Your task to perform on an android device: What's the weather going to be this weekend? Image 0: 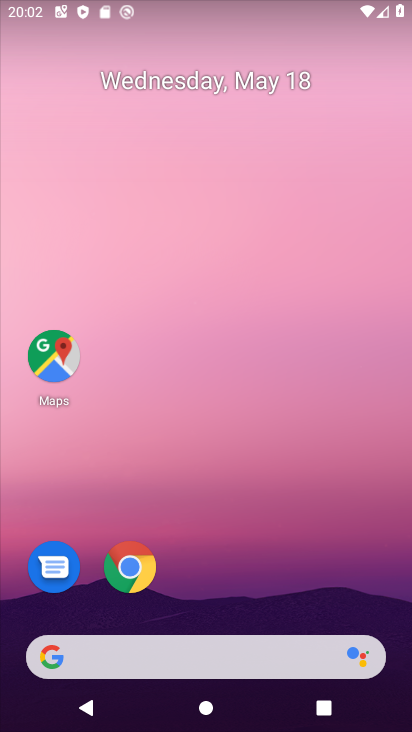
Step 0: drag from (47, 724) to (1, 361)
Your task to perform on an android device: What's the weather going to be this weekend? Image 1: 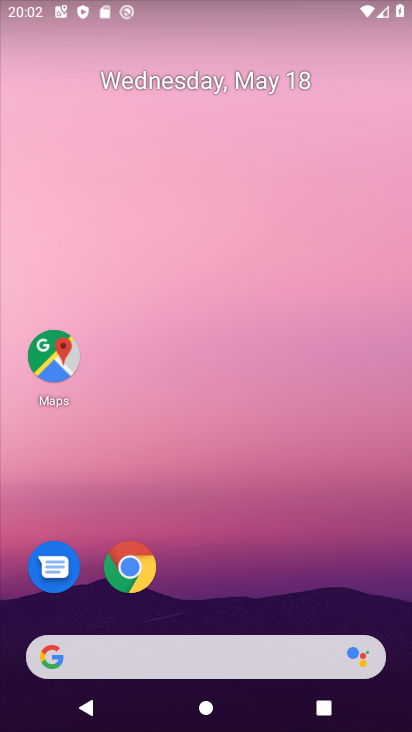
Step 1: click (129, 561)
Your task to perform on an android device: What's the weather going to be this weekend? Image 2: 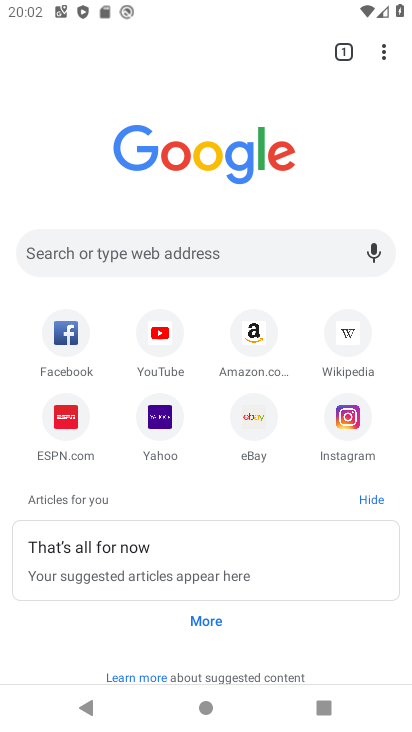
Step 2: click (141, 260)
Your task to perform on an android device: What's the weather going to be this weekend? Image 3: 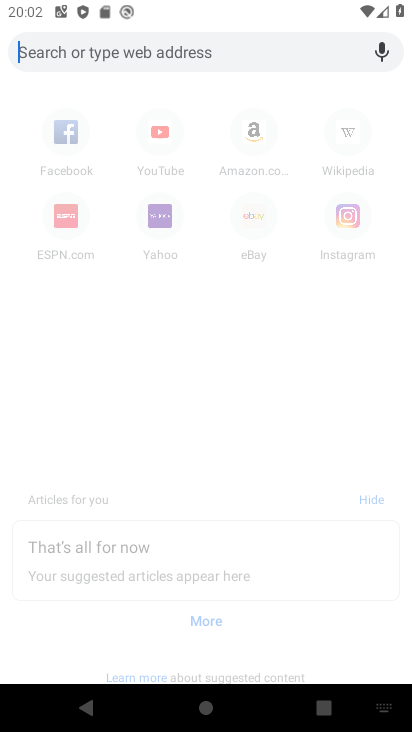
Step 3: type " What's the weather going to be this weekend?"
Your task to perform on an android device: What's the weather going to be this weekend? Image 4: 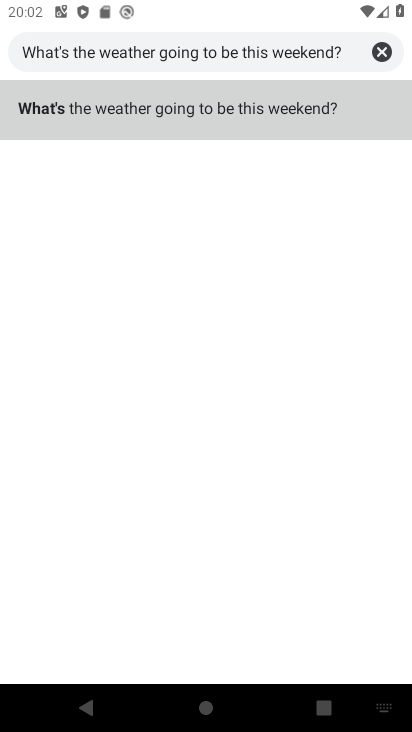
Step 4: click (178, 123)
Your task to perform on an android device: What's the weather going to be this weekend? Image 5: 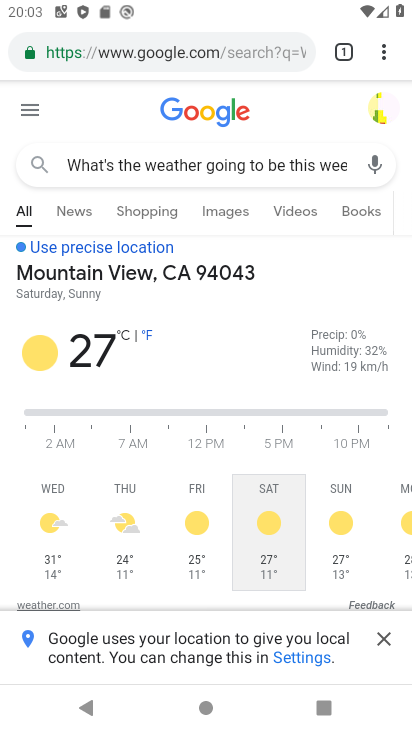
Step 5: task complete